Your task to perform on an android device: toggle javascript in the chrome app Image 0: 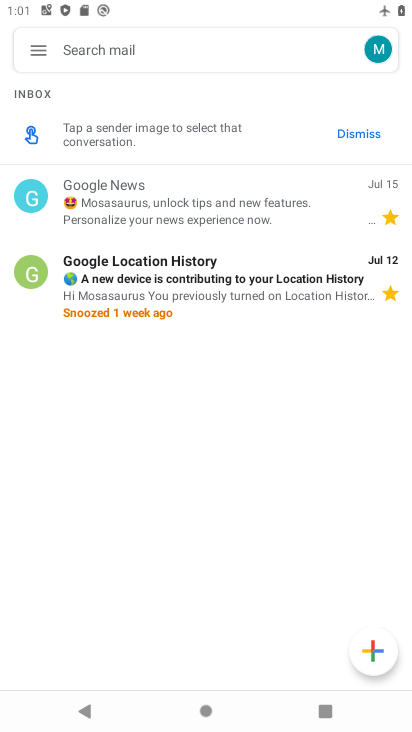
Step 0: press home button
Your task to perform on an android device: toggle javascript in the chrome app Image 1: 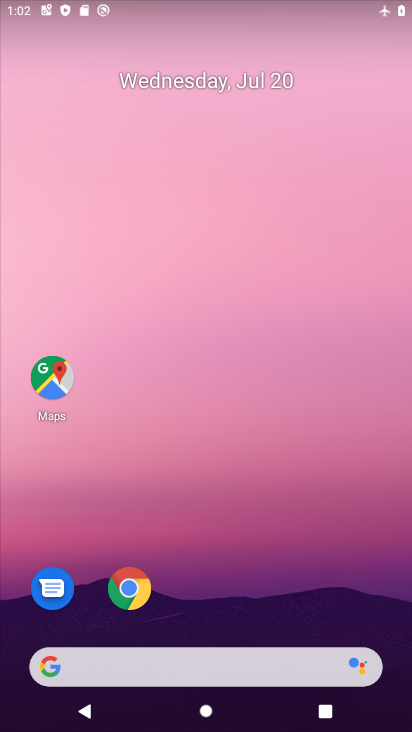
Step 1: click (124, 587)
Your task to perform on an android device: toggle javascript in the chrome app Image 2: 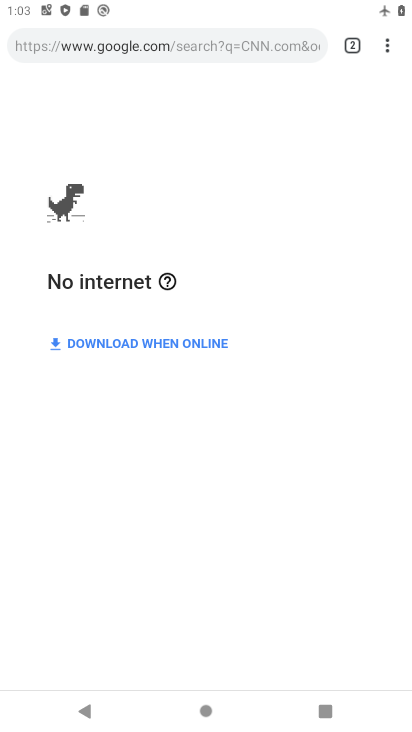
Step 2: task complete